Your task to perform on an android device: allow cookies in the chrome app Image 0: 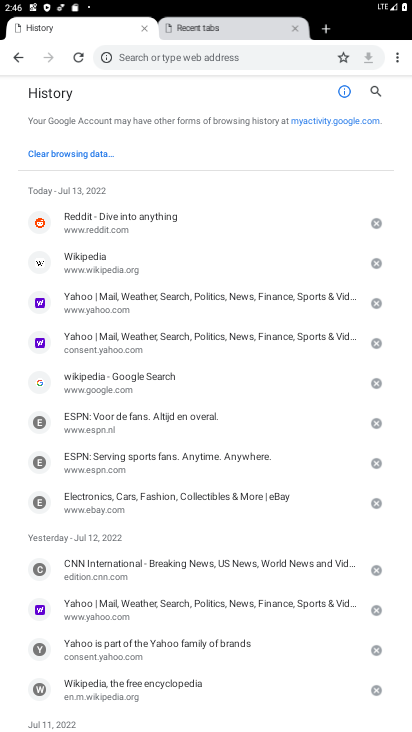
Step 0: press home button
Your task to perform on an android device: allow cookies in the chrome app Image 1: 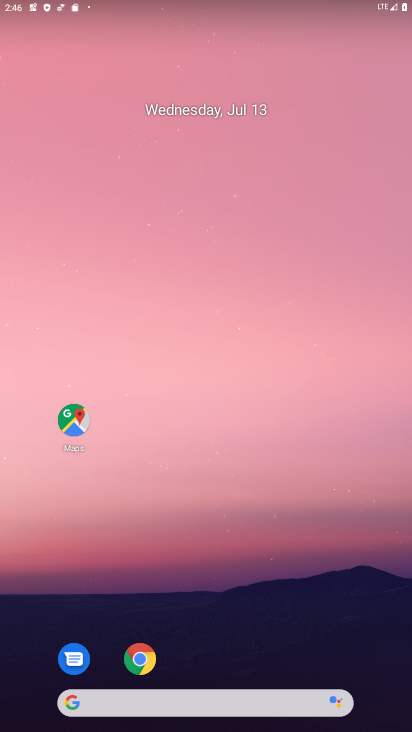
Step 1: click (137, 659)
Your task to perform on an android device: allow cookies in the chrome app Image 2: 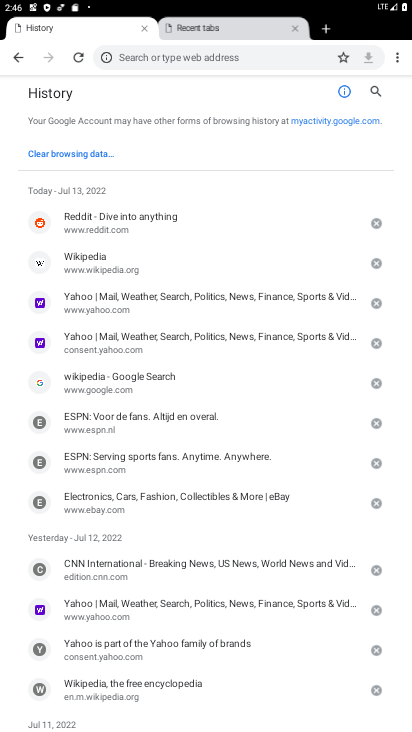
Step 2: click (59, 152)
Your task to perform on an android device: allow cookies in the chrome app Image 3: 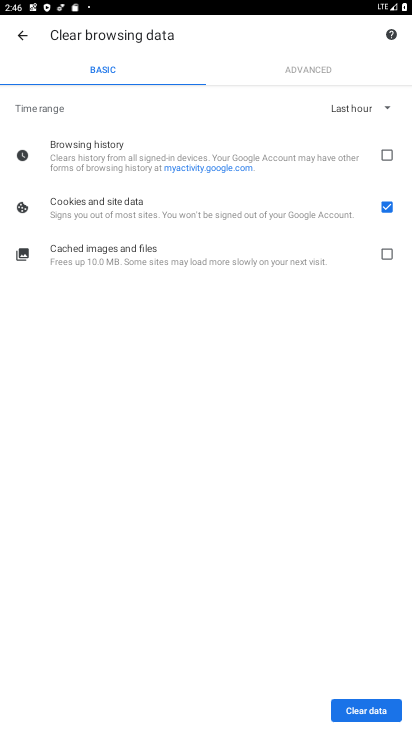
Step 3: click (365, 707)
Your task to perform on an android device: allow cookies in the chrome app Image 4: 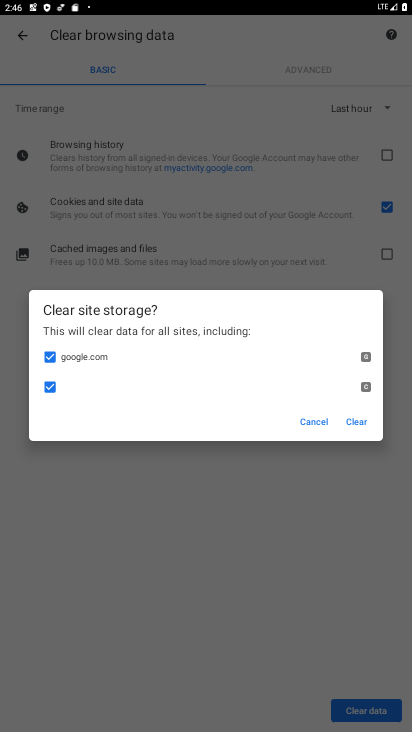
Step 4: click (355, 423)
Your task to perform on an android device: allow cookies in the chrome app Image 5: 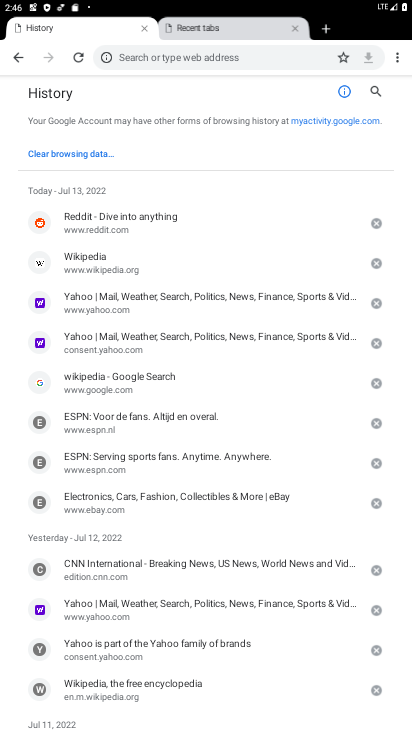
Step 5: task complete